Your task to perform on an android device: turn off notifications in google photos Image 0: 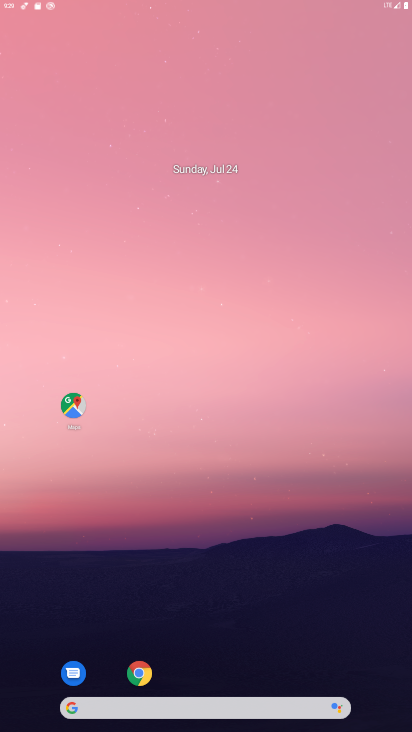
Step 0: click (134, 679)
Your task to perform on an android device: turn off notifications in google photos Image 1: 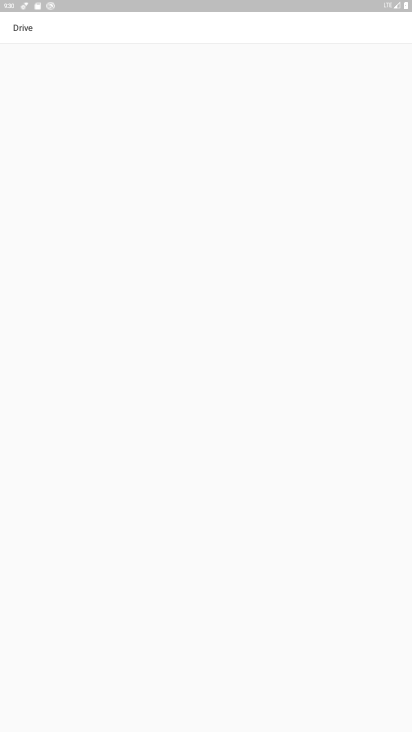
Step 1: press home button
Your task to perform on an android device: turn off notifications in google photos Image 2: 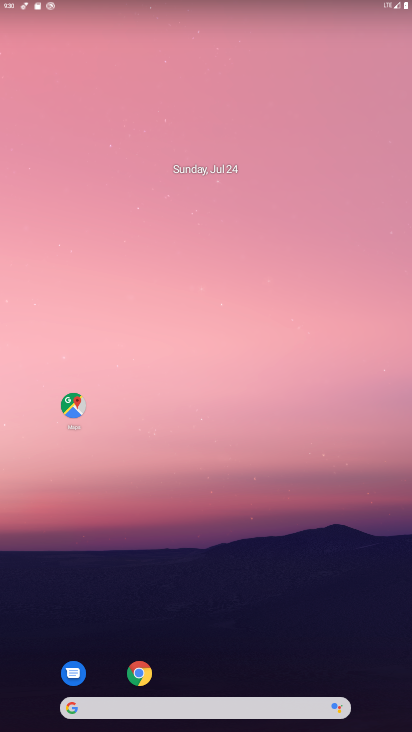
Step 2: drag from (207, 654) to (135, 9)
Your task to perform on an android device: turn off notifications in google photos Image 3: 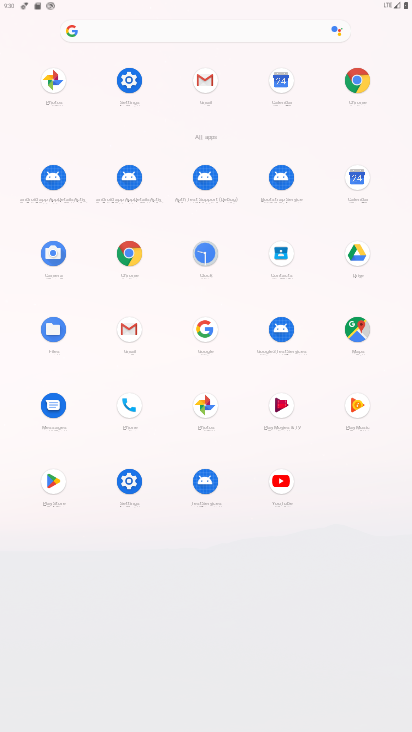
Step 3: click (207, 411)
Your task to perform on an android device: turn off notifications in google photos Image 4: 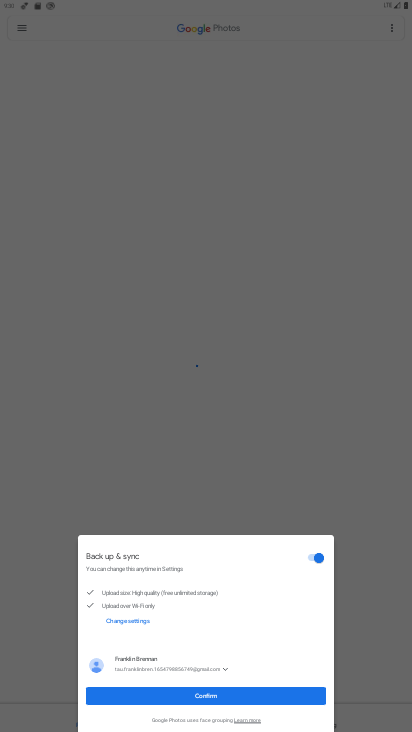
Step 4: click (225, 693)
Your task to perform on an android device: turn off notifications in google photos Image 5: 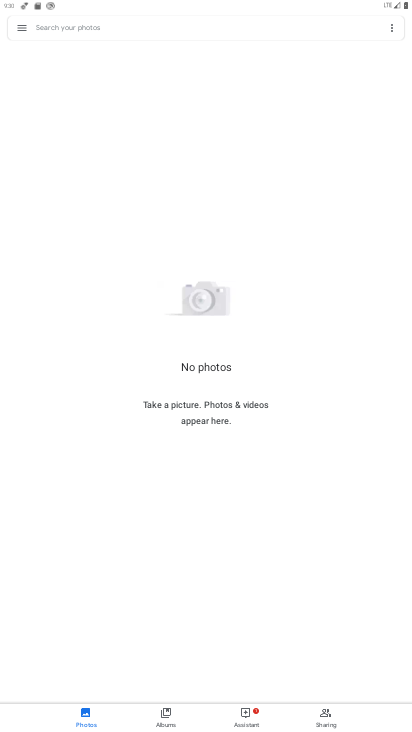
Step 5: click (19, 27)
Your task to perform on an android device: turn off notifications in google photos Image 6: 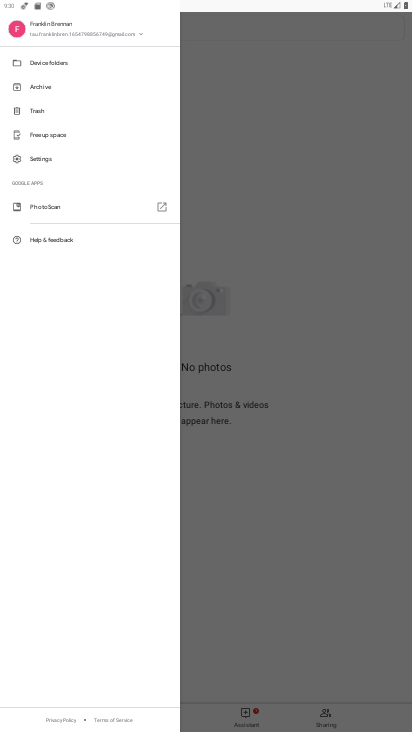
Step 6: click (43, 164)
Your task to perform on an android device: turn off notifications in google photos Image 7: 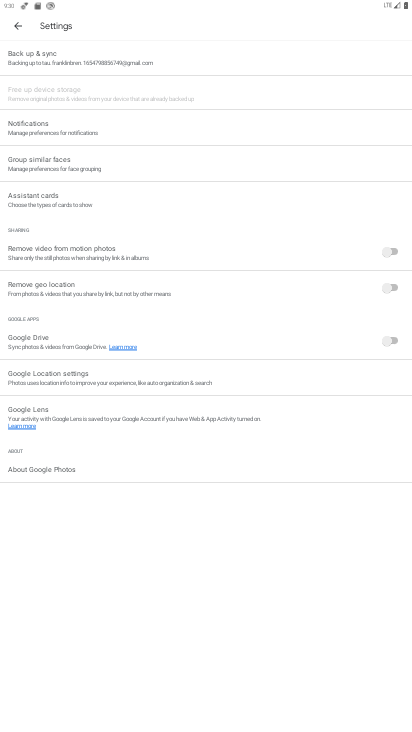
Step 7: click (44, 128)
Your task to perform on an android device: turn off notifications in google photos Image 8: 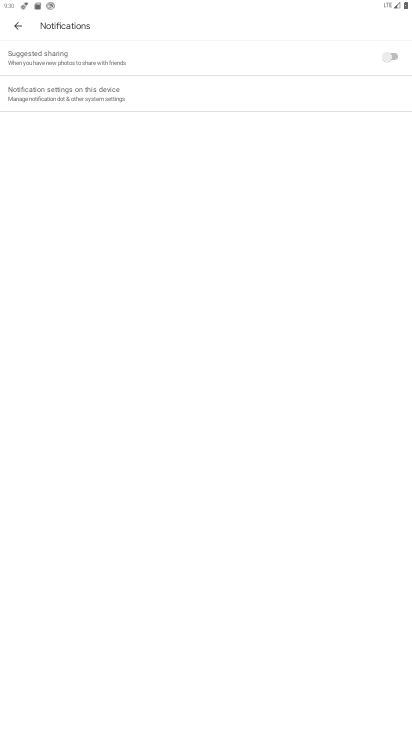
Step 8: click (59, 93)
Your task to perform on an android device: turn off notifications in google photos Image 9: 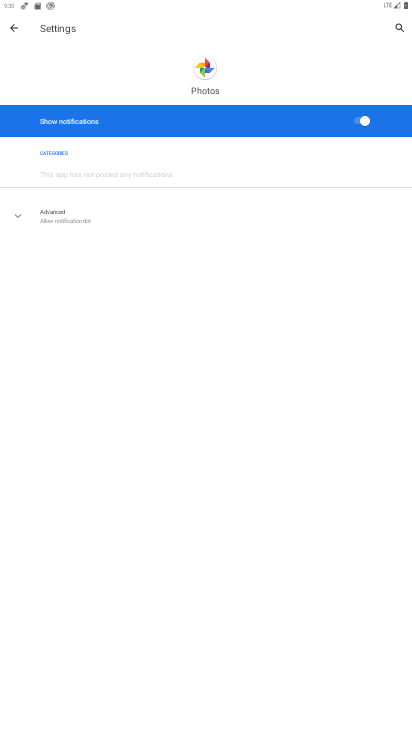
Step 9: click (340, 116)
Your task to perform on an android device: turn off notifications in google photos Image 10: 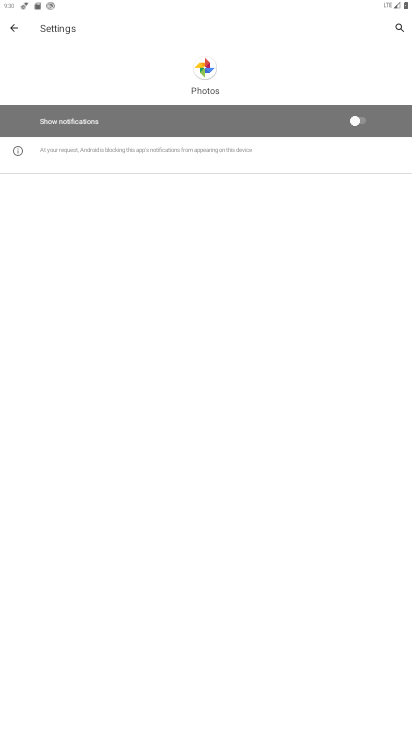
Step 10: task complete